Your task to perform on an android device: Check the latest 3D printers on Target. Image 0: 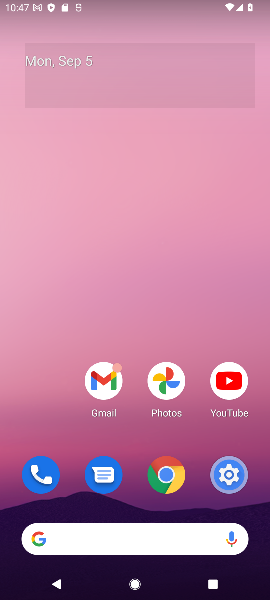
Step 0: click (139, 538)
Your task to perform on an android device: Check the latest 3D printers on Target. Image 1: 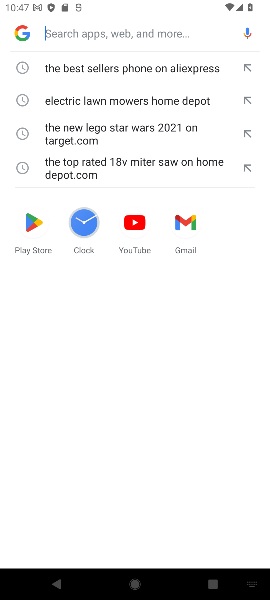
Step 1: type "the latest 3D printers on Target."
Your task to perform on an android device: Check the latest 3D printers on Target. Image 2: 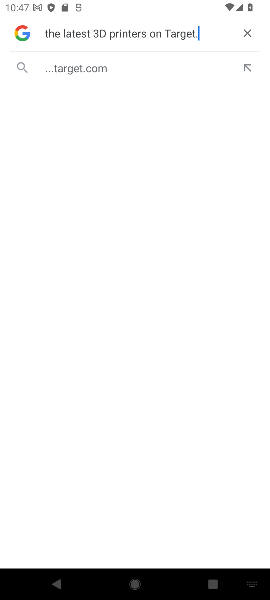
Step 2: click (87, 64)
Your task to perform on an android device: Check the latest 3D printers on Target. Image 3: 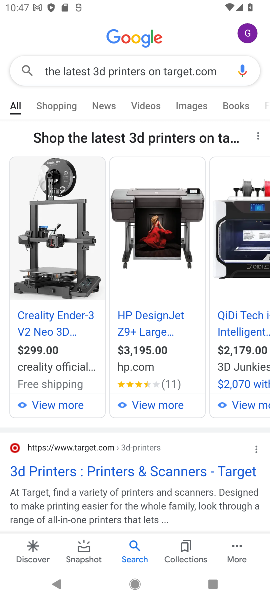
Step 3: task complete